Your task to perform on an android device: turn on showing notifications on the lock screen Image 0: 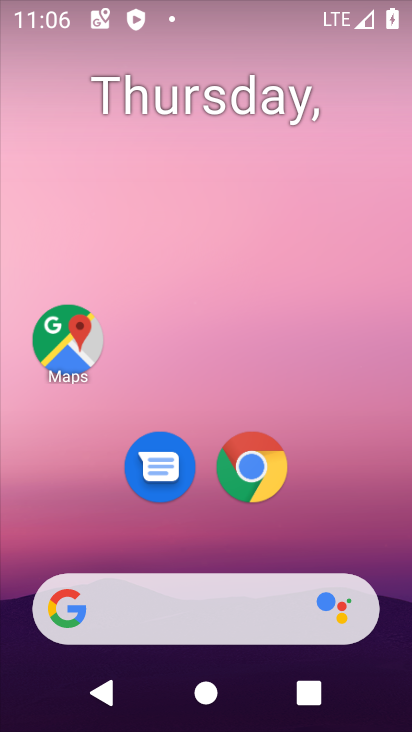
Step 0: drag from (188, 546) to (274, 36)
Your task to perform on an android device: turn on showing notifications on the lock screen Image 1: 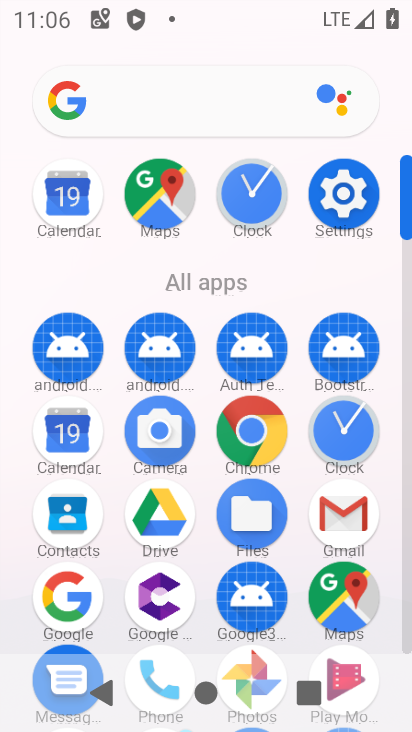
Step 1: click (338, 187)
Your task to perform on an android device: turn on showing notifications on the lock screen Image 2: 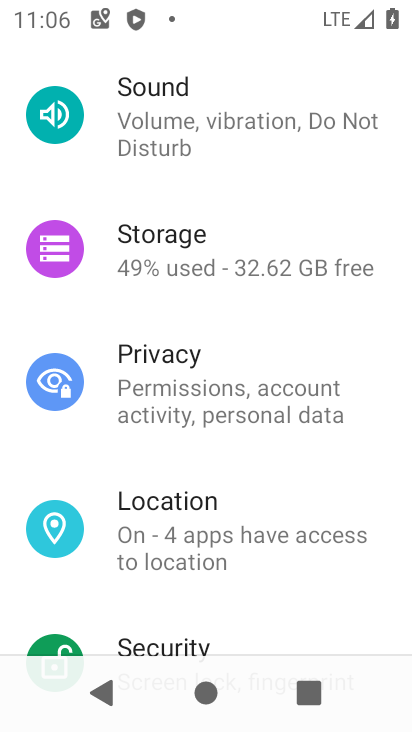
Step 2: drag from (237, 103) to (169, 550)
Your task to perform on an android device: turn on showing notifications on the lock screen Image 3: 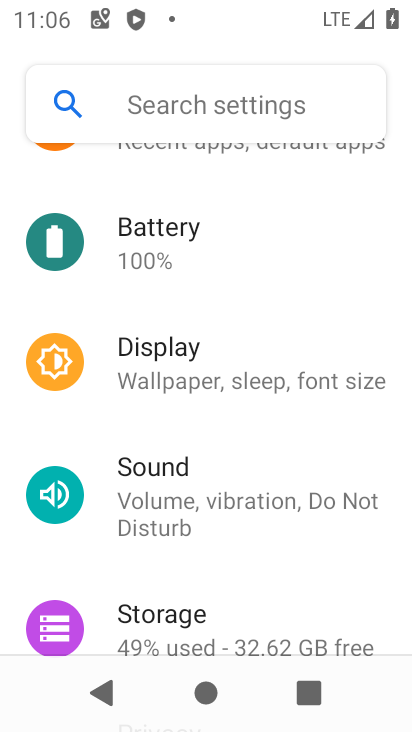
Step 3: drag from (176, 212) to (192, 590)
Your task to perform on an android device: turn on showing notifications on the lock screen Image 4: 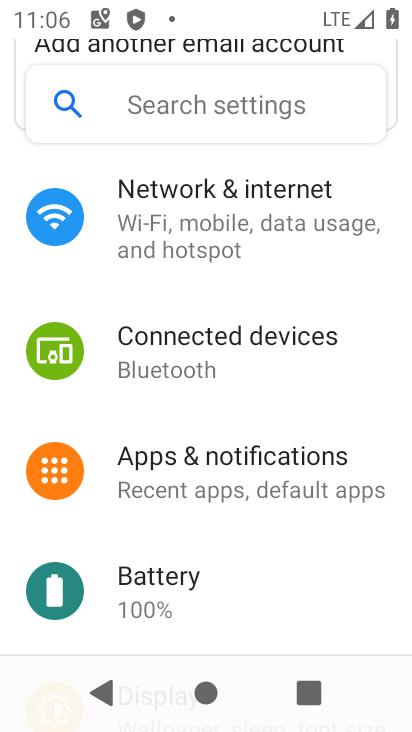
Step 4: click (191, 472)
Your task to perform on an android device: turn on showing notifications on the lock screen Image 5: 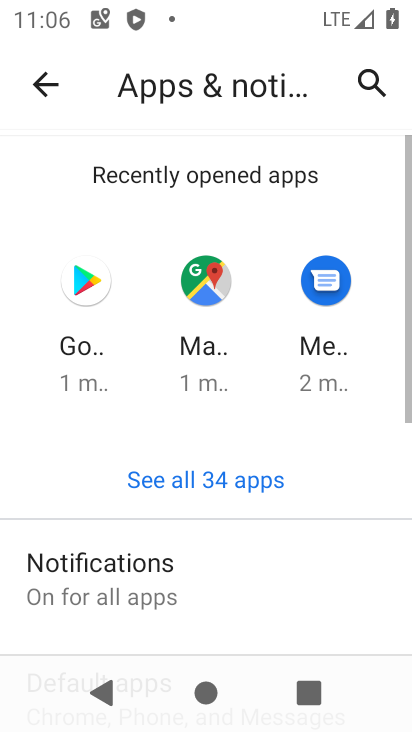
Step 5: drag from (166, 598) to (264, 321)
Your task to perform on an android device: turn on showing notifications on the lock screen Image 6: 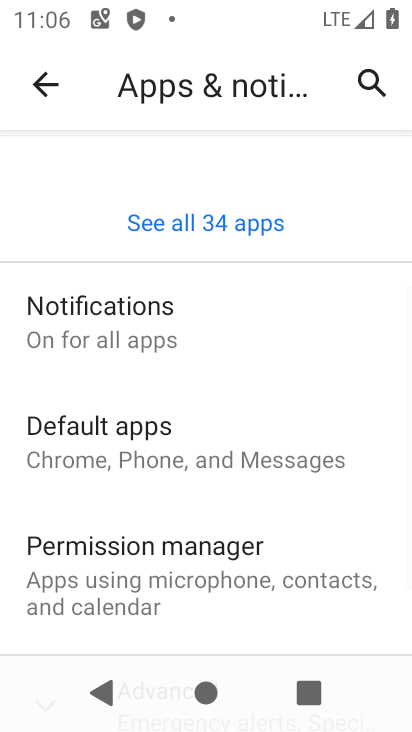
Step 6: click (135, 329)
Your task to perform on an android device: turn on showing notifications on the lock screen Image 7: 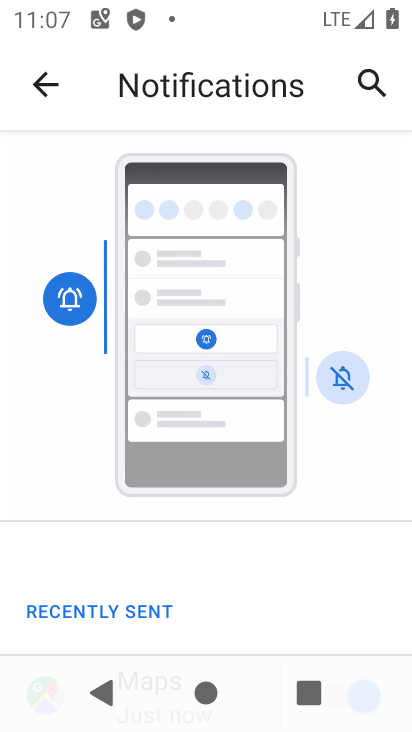
Step 7: drag from (185, 566) to (321, 32)
Your task to perform on an android device: turn on showing notifications on the lock screen Image 8: 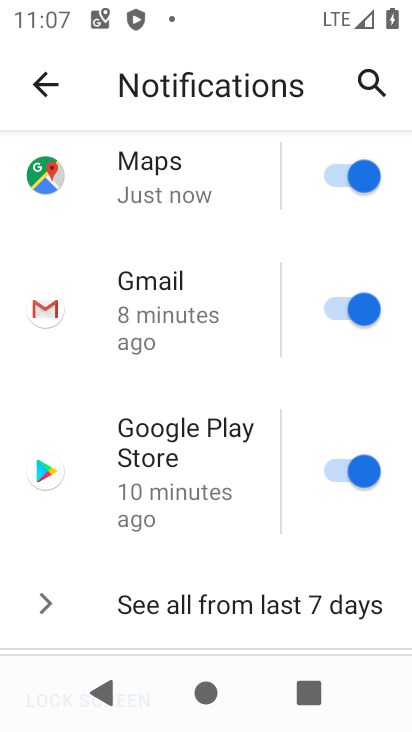
Step 8: drag from (193, 568) to (286, 71)
Your task to perform on an android device: turn on showing notifications on the lock screen Image 9: 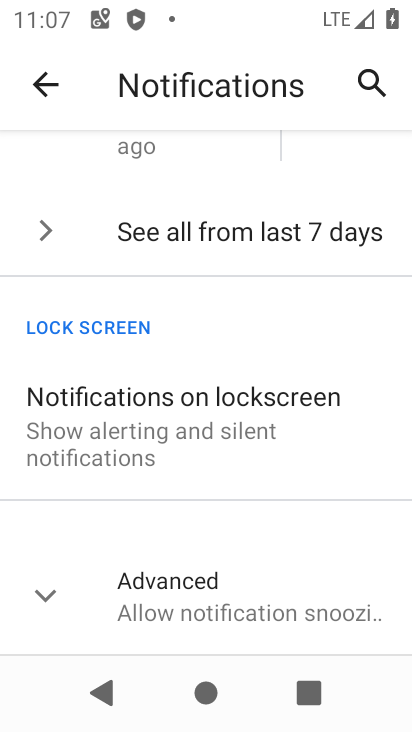
Step 9: click (165, 431)
Your task to perform on an android device: turn on showing notifications on the lock screen Image 10: 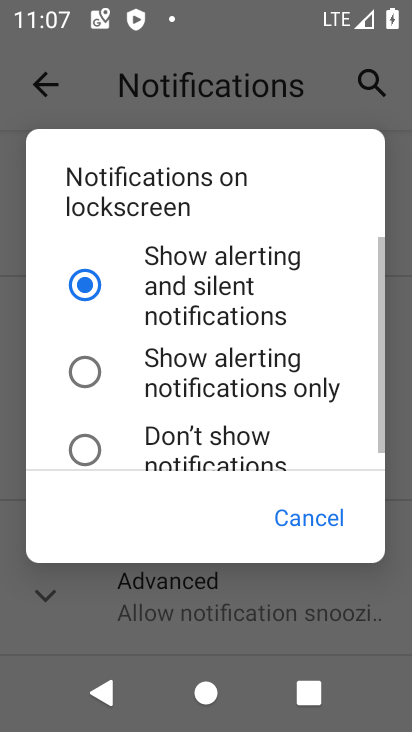
Step 10: click (98, 284)
Your task to perform on an android device: turn on showing notifications on the lock screen Image 11: 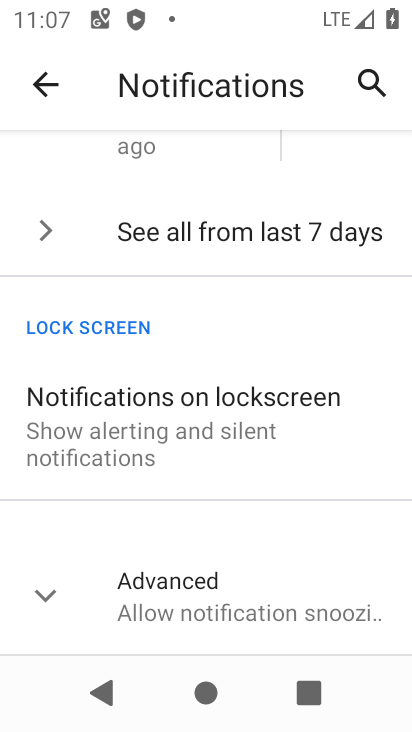
Step 11: task complete